Your task to perform on an android device: open a bookmark in the chrome app Image 0: 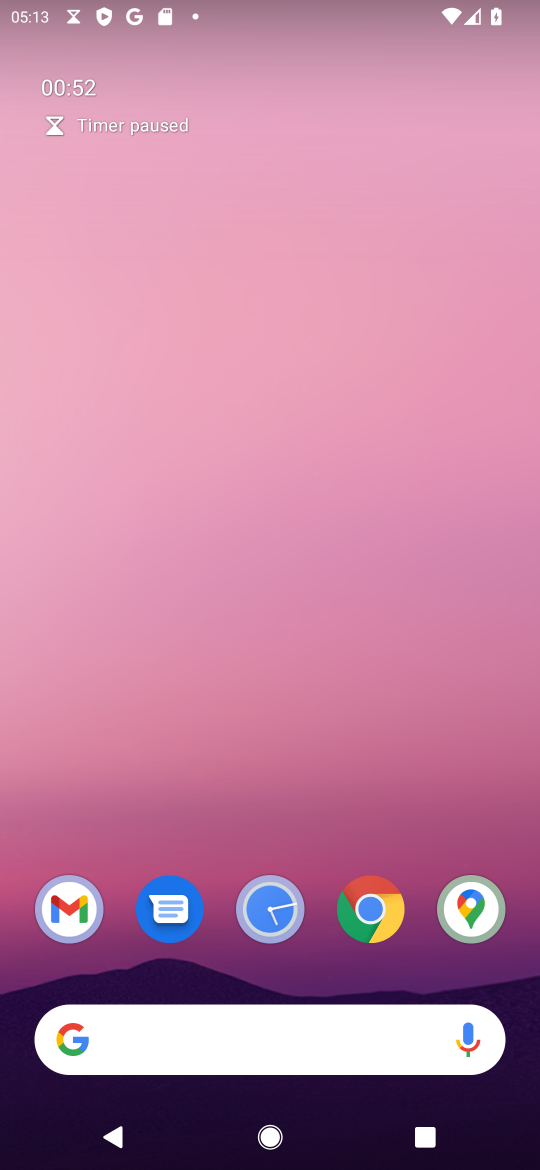
Step 0: click (365, 902)
Your task to perform on an android device: open a bookmark in the chrome app Image 1: 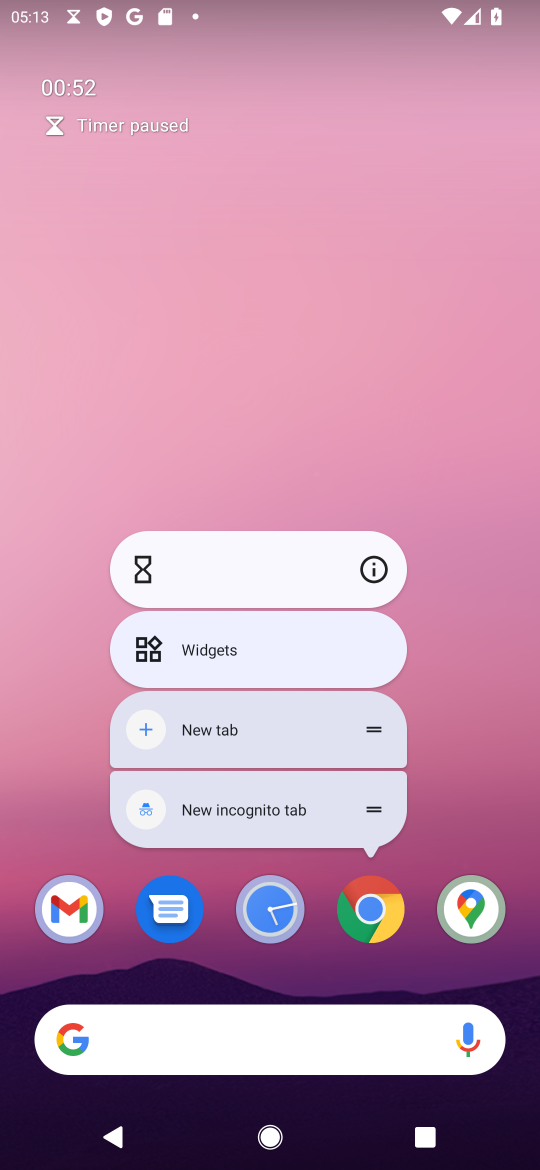
Step 1: click (361, 909)
Your task to perform on an android device: open a bookmark in the chrome app Image 2: 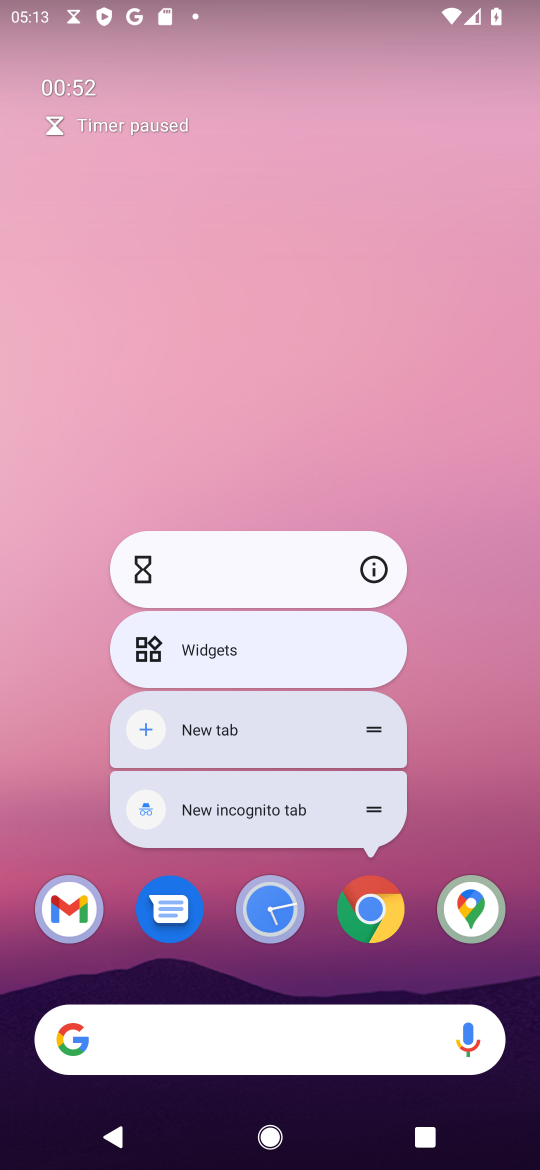
Step 2: click (361, 909)
Your task to perform on an android device: open a bookmark in the chrome app Image 3: 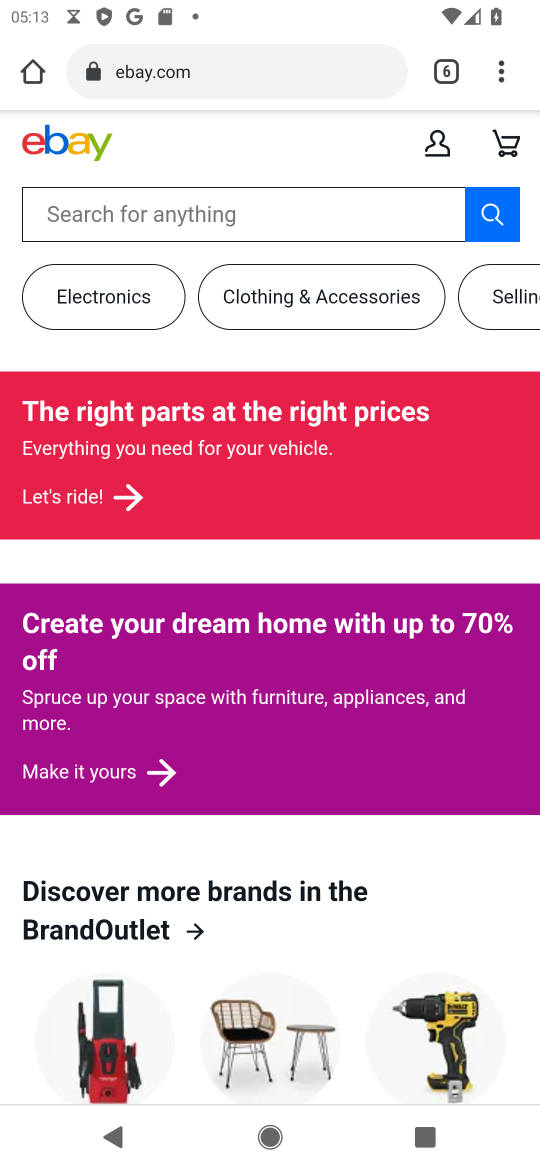
Step 3: task complete